Your task to perform on an android device: Open the calendar app, open the side menu, and click the "Day" option Image 0: 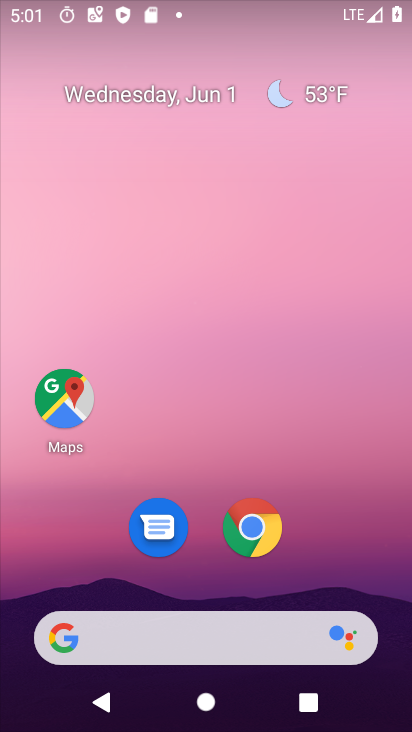
Step 0: drag from (343, 571) to (354, 4)
Your task to perform on an android device: Open the calendar app, open the side menu, and click the "Day" option Image 1: 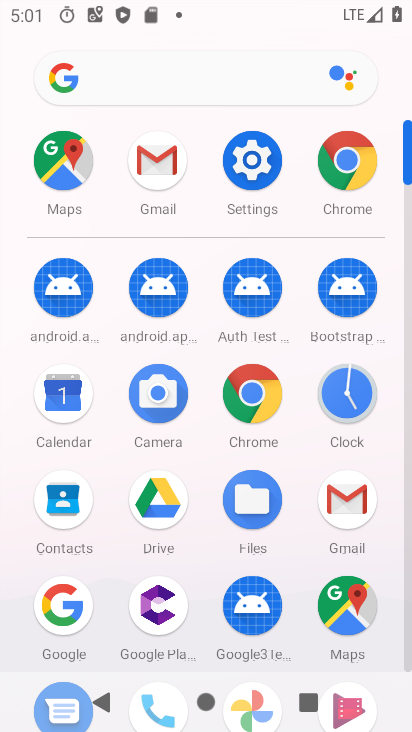
Step 1: click (65, 389)
Your task to perform on an android device: Open the calendar app, open the side menu, and click the "Day" option Image 2: 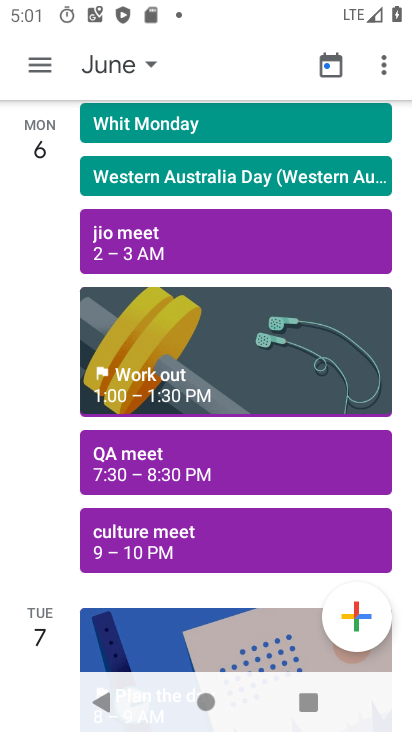
Step 2: click (49, 66)
Your task to perform on an android device: Open the calendar app, open the side menu, and click the "Day" option Image 3: 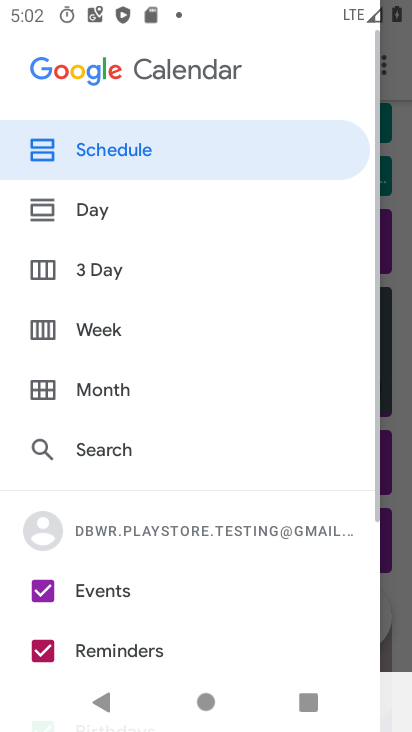
Step 3: click (96, 202)
Your task to perform on an android device: Open the calendar app, open the side menu, and click the "Day" option Image 4: 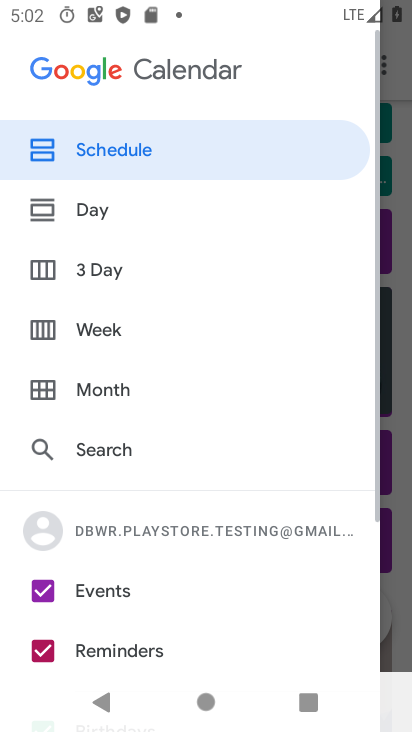
Step 4: click (83, 213)
Your task to perform on an android device: Open the calendar app, open the side menu, and click the "Day" option Image 5: 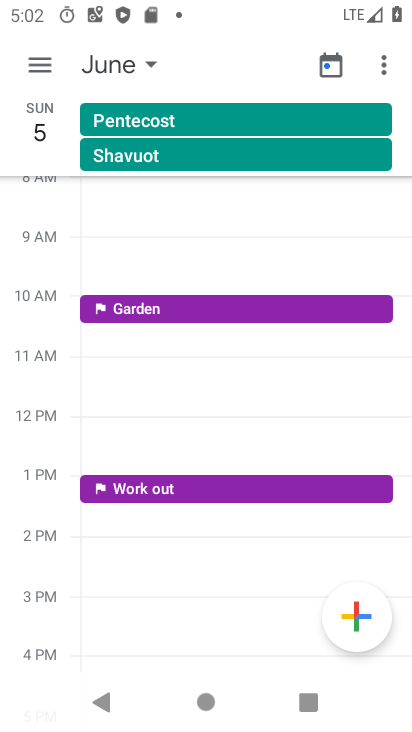
Step 5: task complete